Your task to perform on an android device: Open the map Image 0: 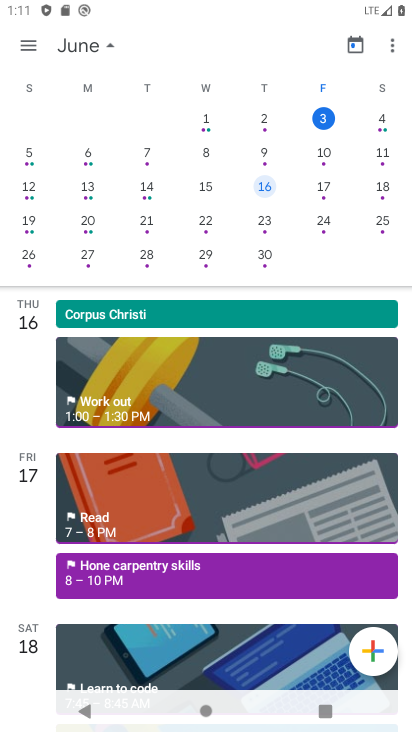
Step 0: press home button
Your task to perform on an android device: Open the map Image 1: 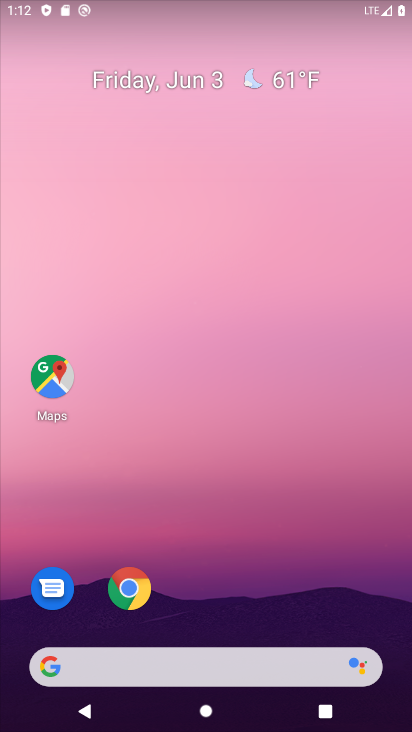
Step 1: click (163, 173)
Your task to perform on an android device: Open the map Image 2: 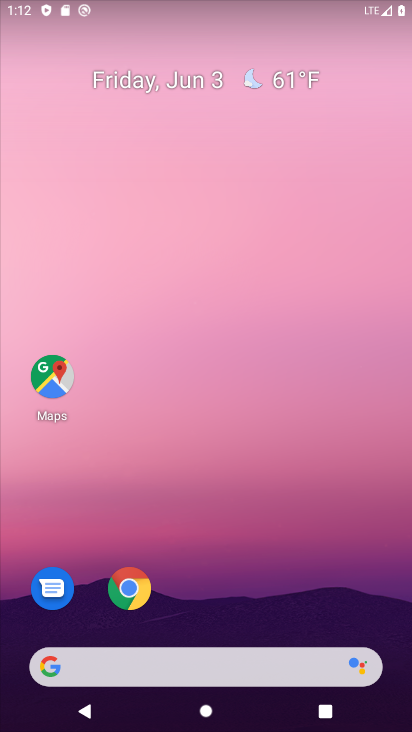
Step 2: drag from (220, 596) to (204, 63)
Your task to perform on an android device: Open the map Image 3: 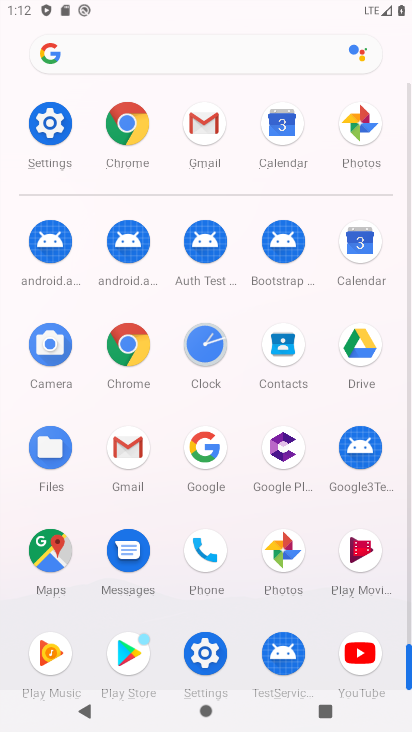
Step 3: click (63, 557)
Your task to perform on an android device: Open the map Image 4: 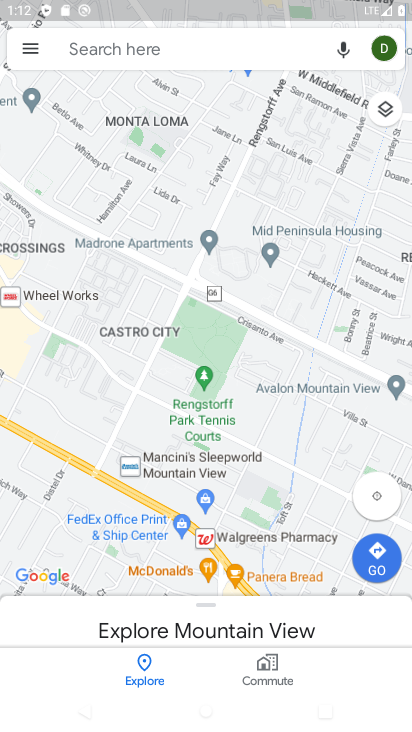
Step 4: task complete